Your task to perform on an android device: Search for flights from Tokyo to NYC Image 0: 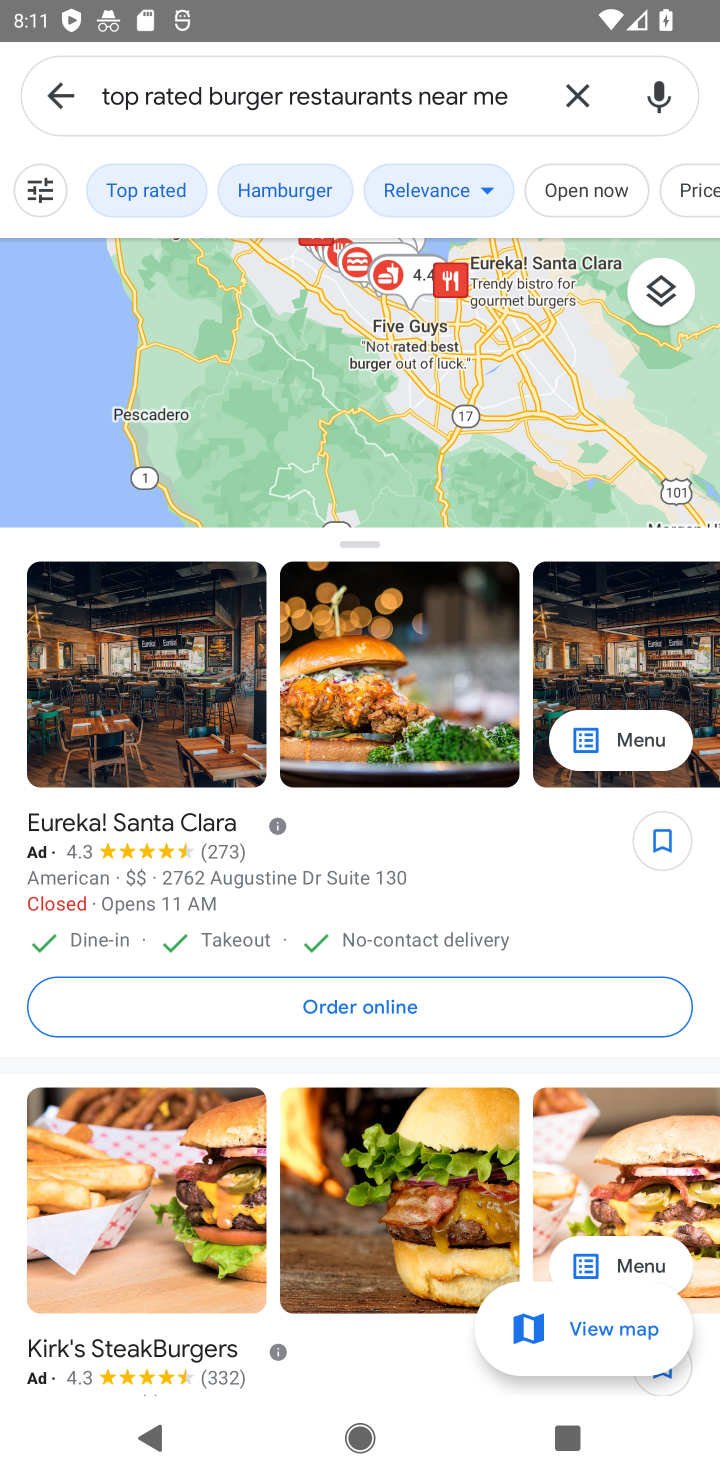
Step 0: press home button
Your task to perform on an android device: Search for flights from Tokyo to NYC Image 1: 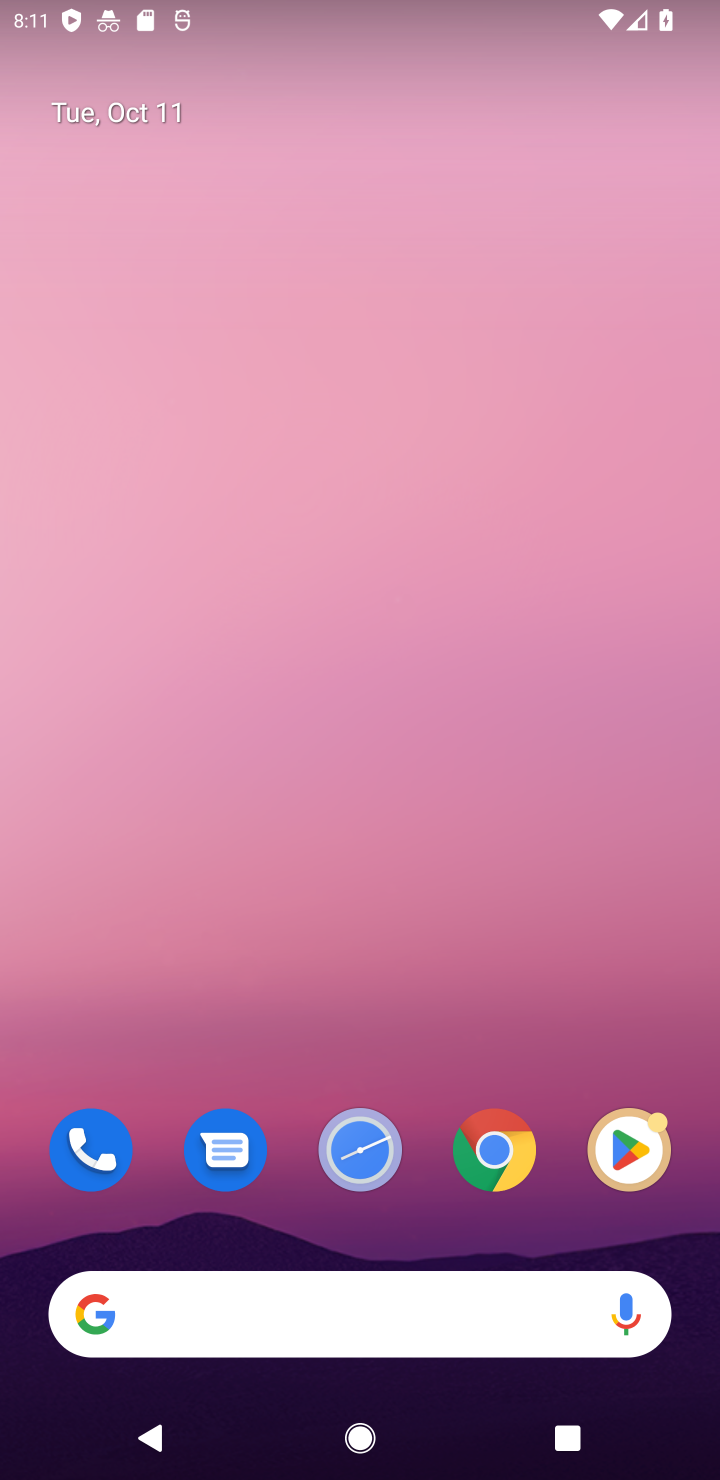
Step 1: click (492, 1149)
Your task to perform on an android device: Search for flights from Tokyo to NYC Image 2: 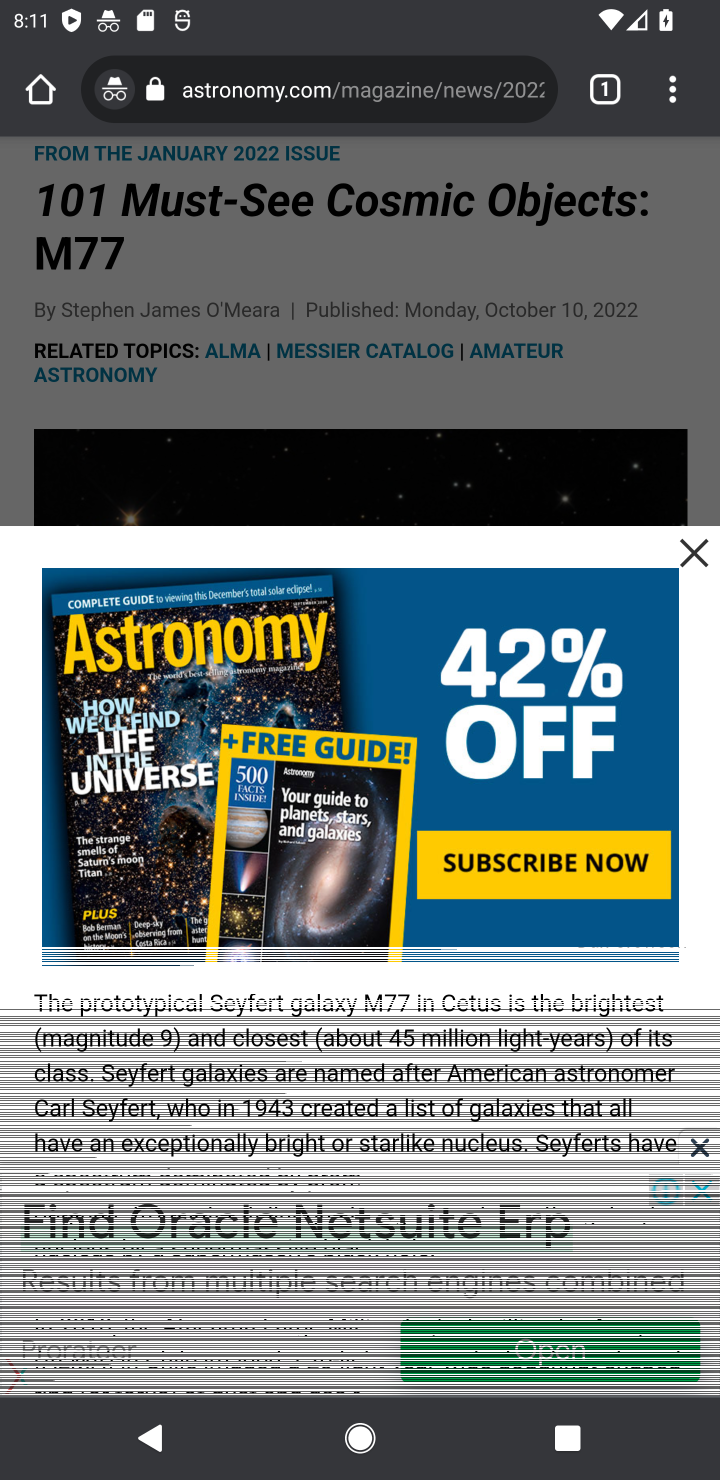
Step 2: click (694, 550)
Your task to perform on an android device: Search for flights from Tokyo to NYC Image 3: 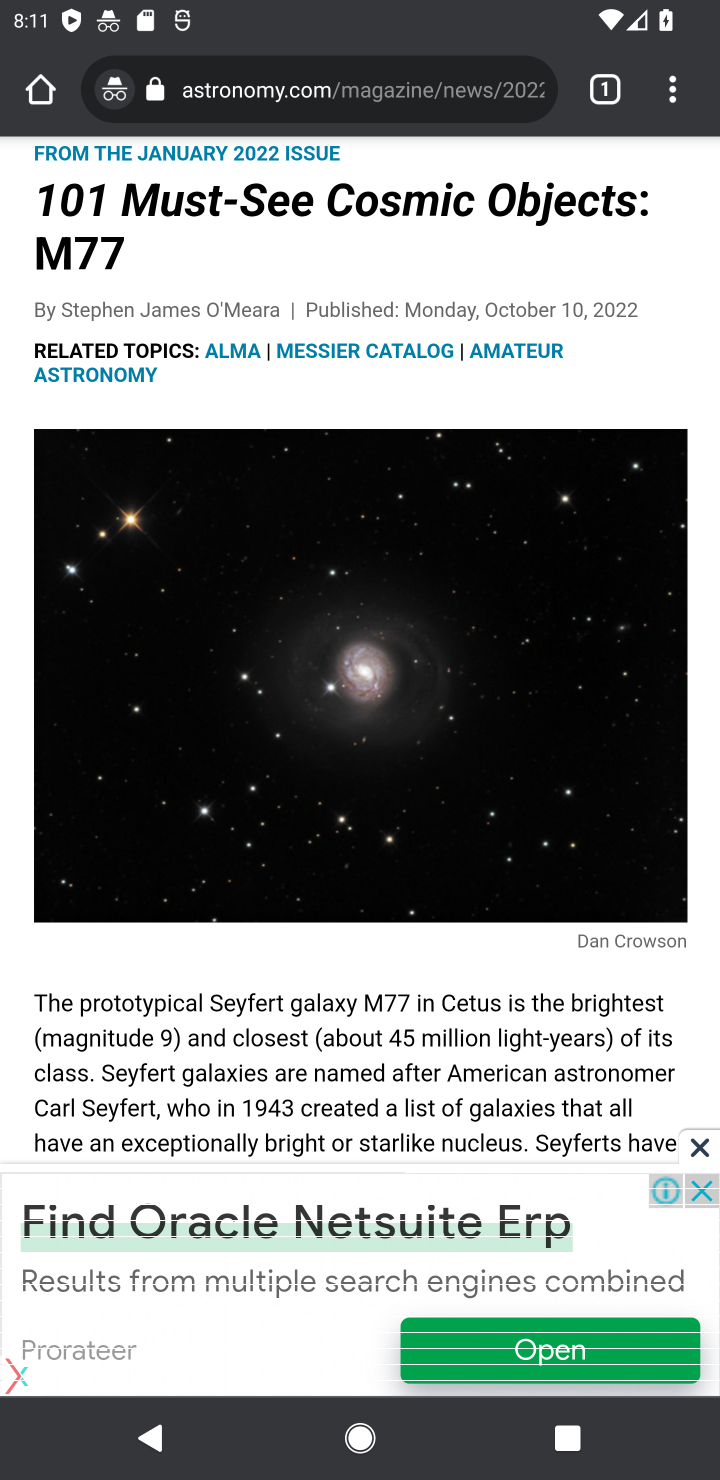
Step 3: click (233, 100)
Your task to perform on an android device: Search for flights from Tokyo to NYC Image 4: 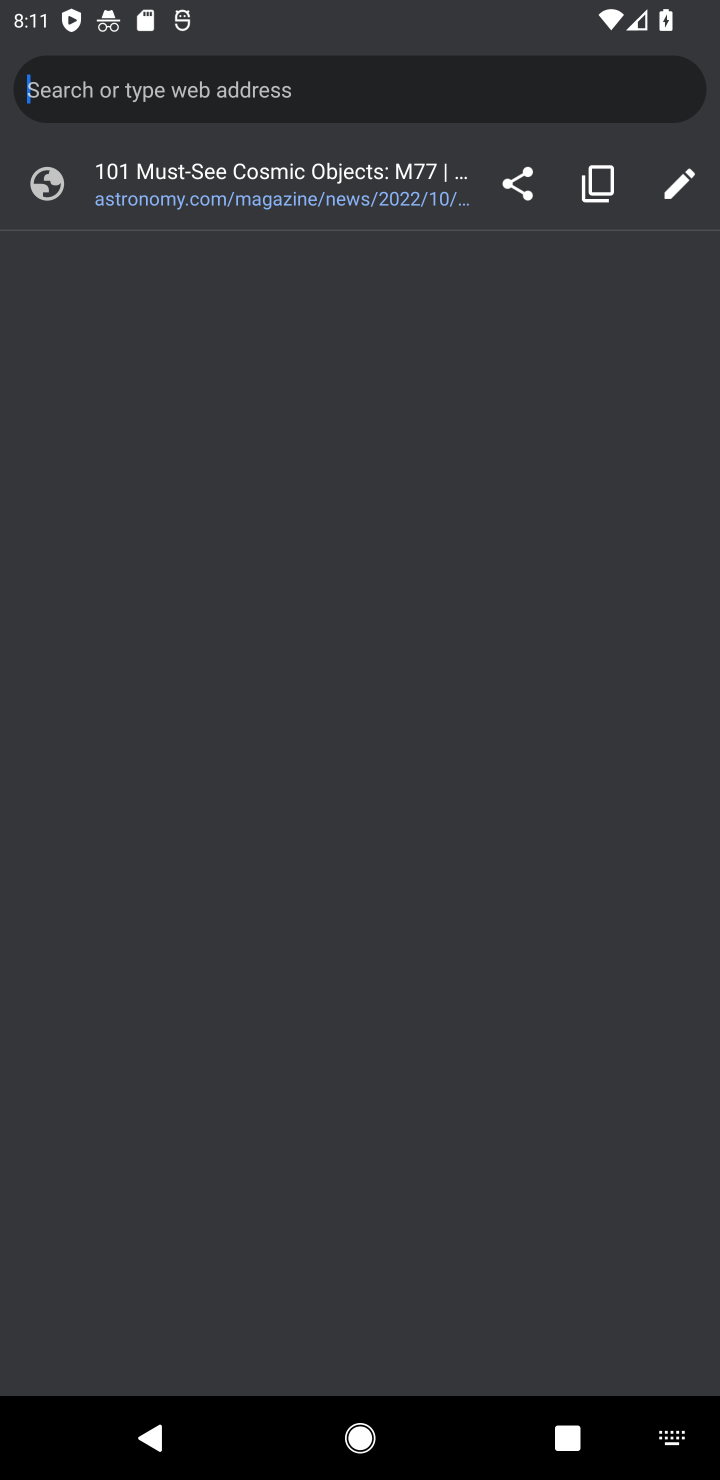
Step 4: type "flights from Tokyo to NYC"
Your task to perform on an android device: Search for flights from Tokyo to NYC Image 5: 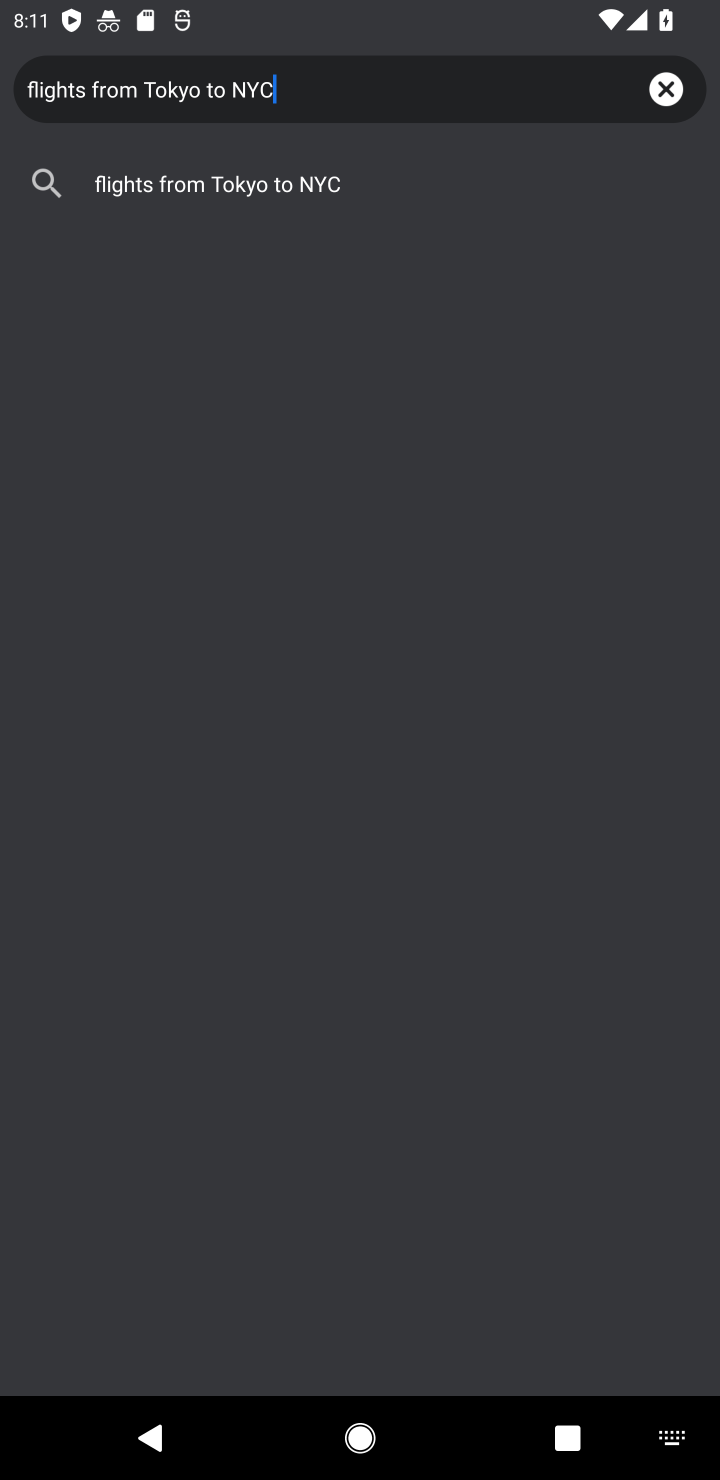
Step 5: click (238, 197)
Your task to perform on an android device: Search for flights from Tokyo to NYC Image 6: 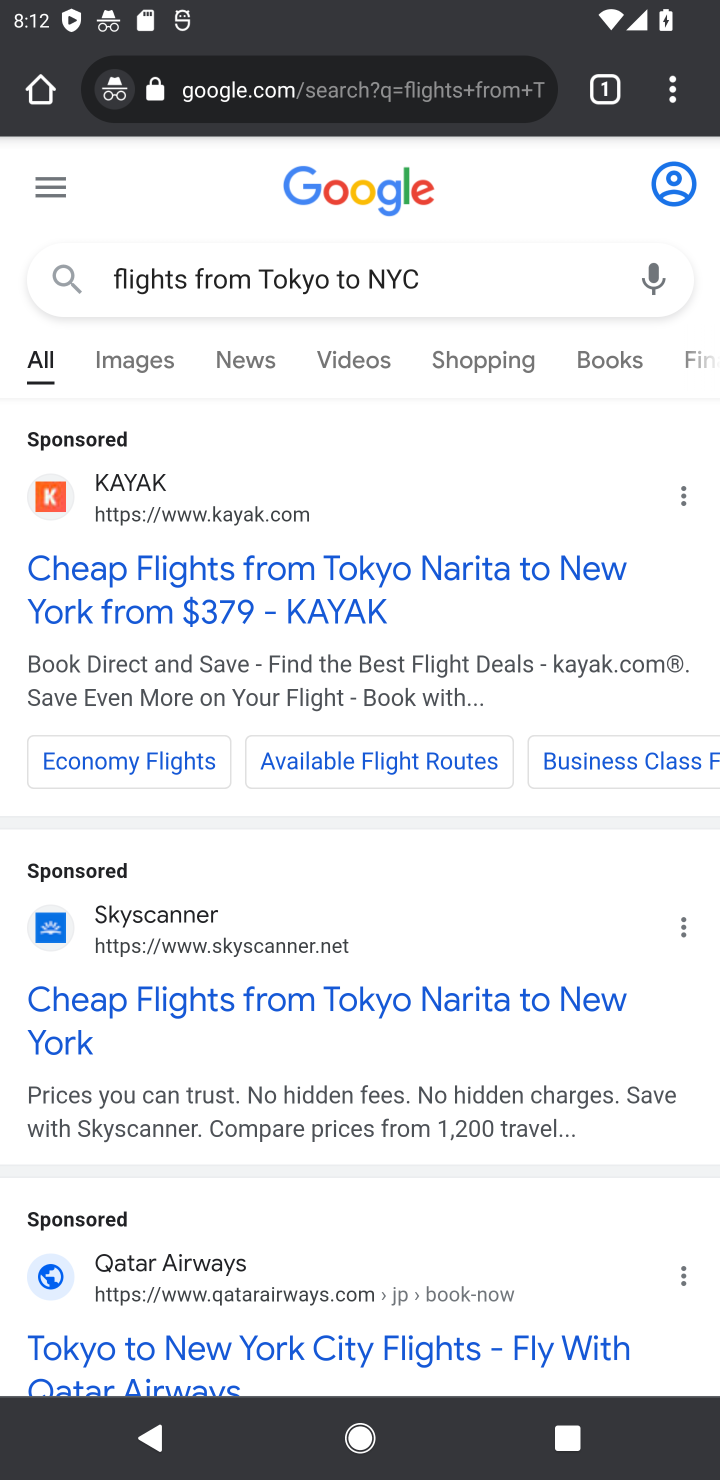
Step 6: click (180, 999)
Your task to perform on an android device: Search for flights from Tokyo to NYC Image 7: 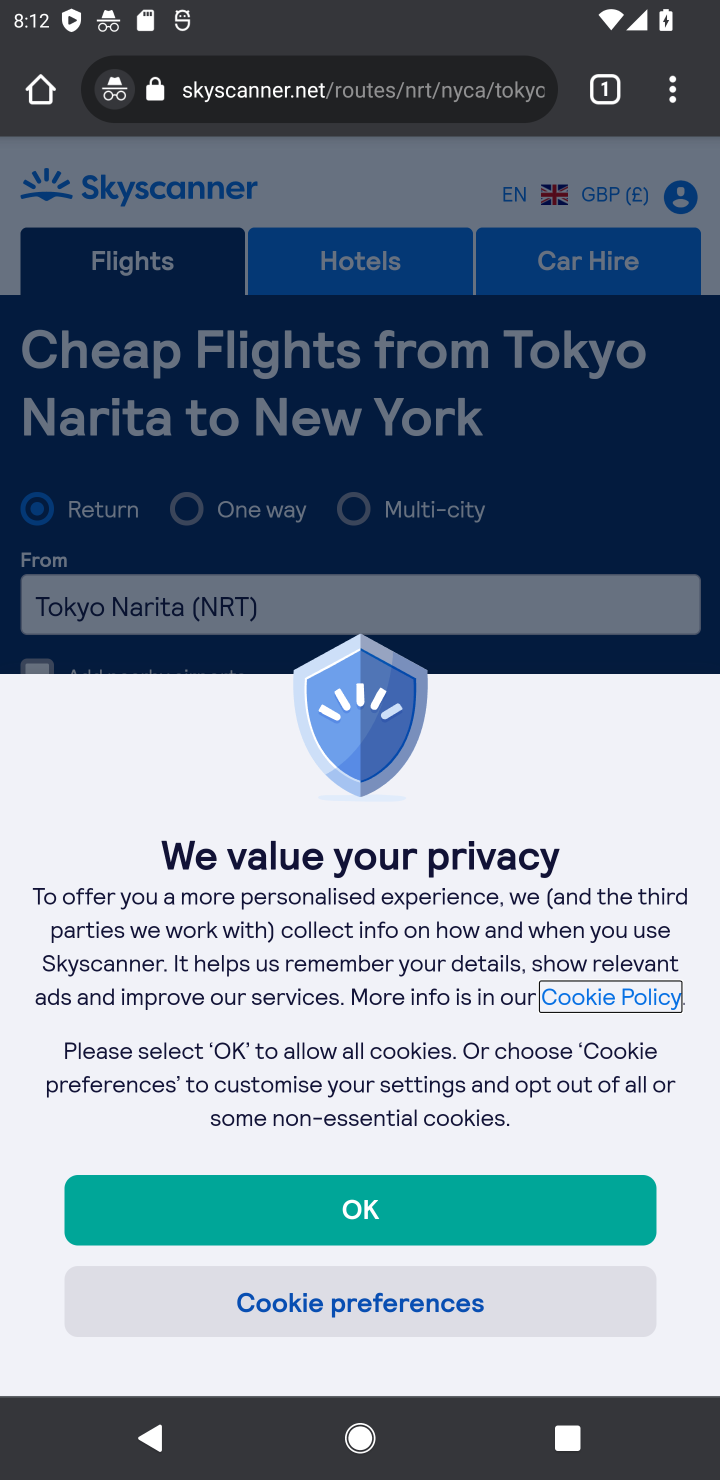
Step 7: task complete